Your task to perform on an android device: Find coffee shops on Maps Image 0: 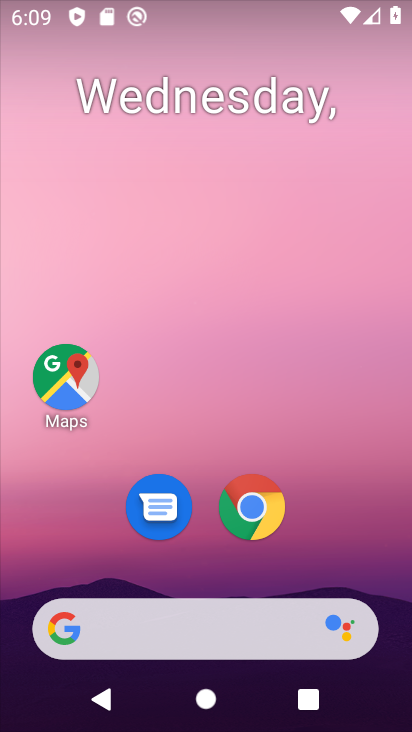
Step 0: drag from (285, 627) to (311, 27)
Your task to perform on an android device: Find coffee shops on Maps Image 1: 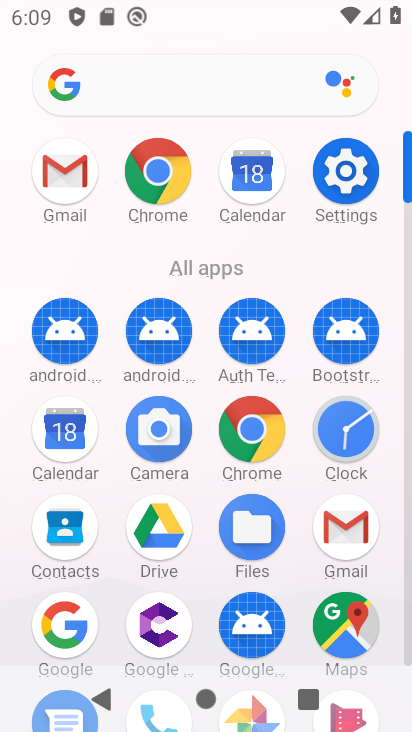
Step 1: click (320, 606)
Your task to perform on an android device: Find coffee shops on Maps Image 2: 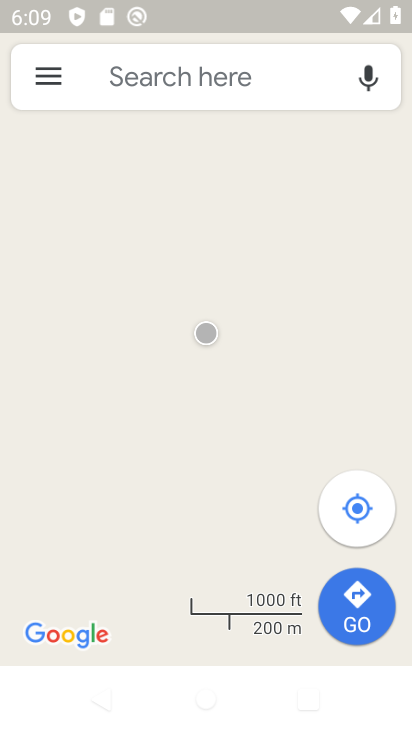
Step 2: click (223, 77)
Your task to perform on an android device: Find coffee shops on Maps Image 3: 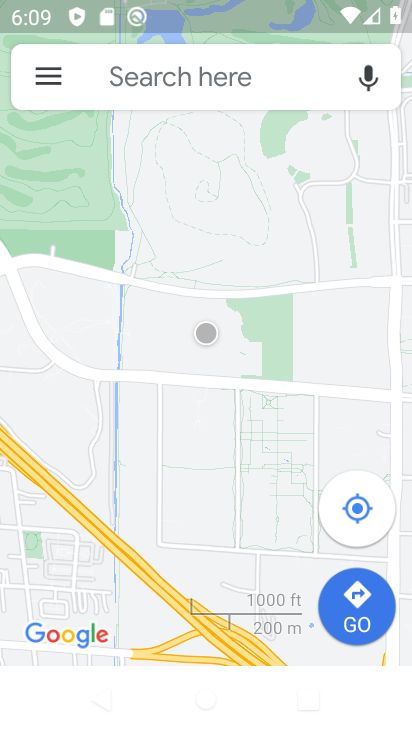
Step 3: click (223, 77)
Your task to perform on an android device: Find coffee shops on Maps Image 4: 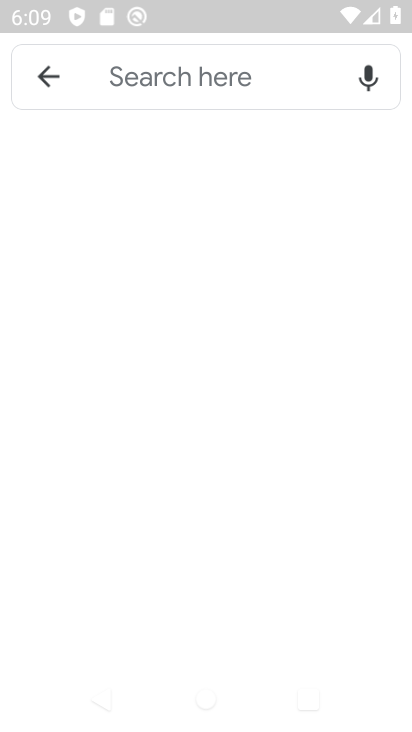
Step 4: click (223, 77)
Your task to perform on an android device: Find coffee shops on Maps Image 5: 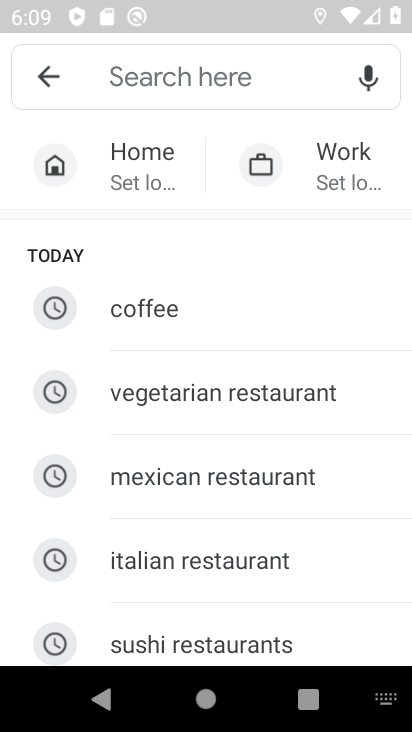
Step 5: type "coffee shops"
Your task to perform on an android device: Find coffee shops on Maps Image 6: 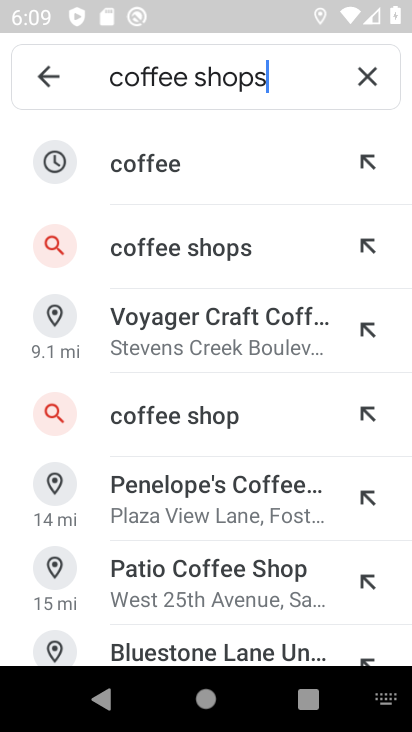
Step 6: click (186, 233)
Your task to perform on an android device: Find coffee shops on Maps Image 7: 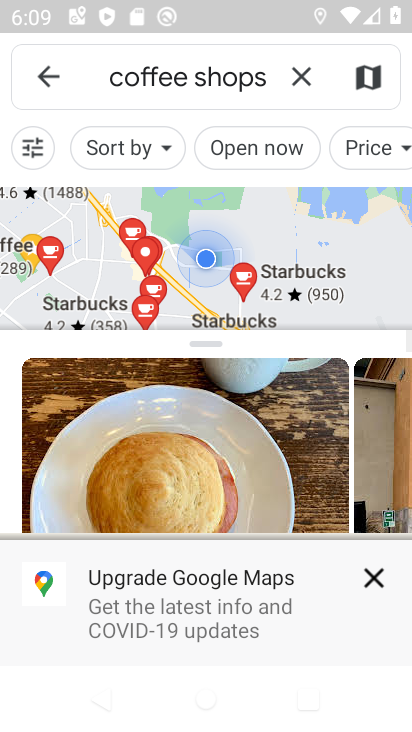
Step 7: task complete